Your task to perform on an android device: Open location settings Image 0: 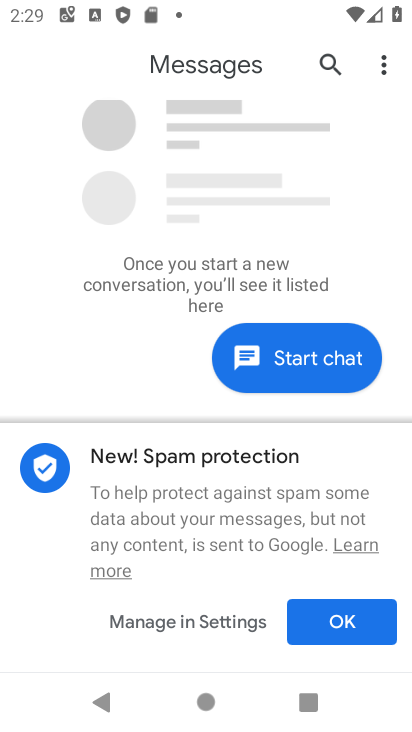
Step 0: press home button
Your task to perform on an android device: Open location settings Image 1: 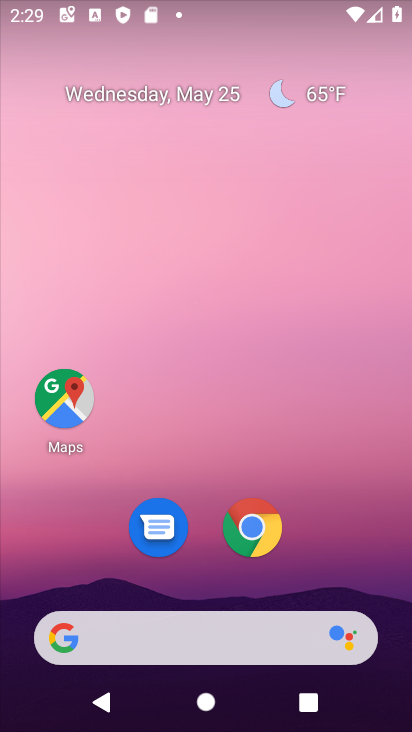
Step 1: drag from (352, 610) to (359, 36)
Your task to perform on an android device: Open location settings Image 2: 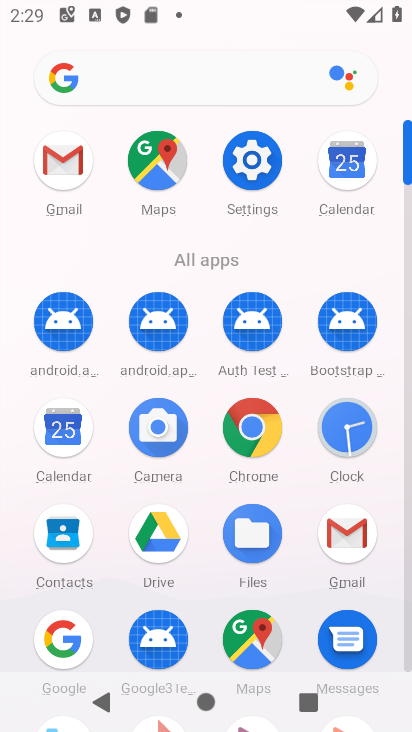
Step 2: click (262, 165)
Your task to perform on an android device: Open location settings Image 3: 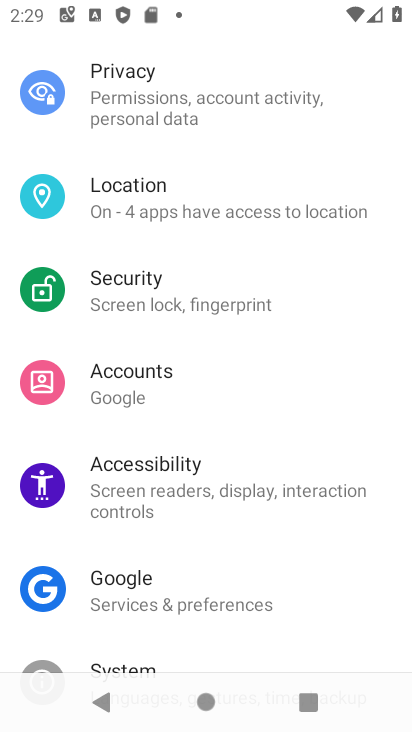
Step 3: click (182, 201)
Your task to perform on an android device: Open location settings Image 4: 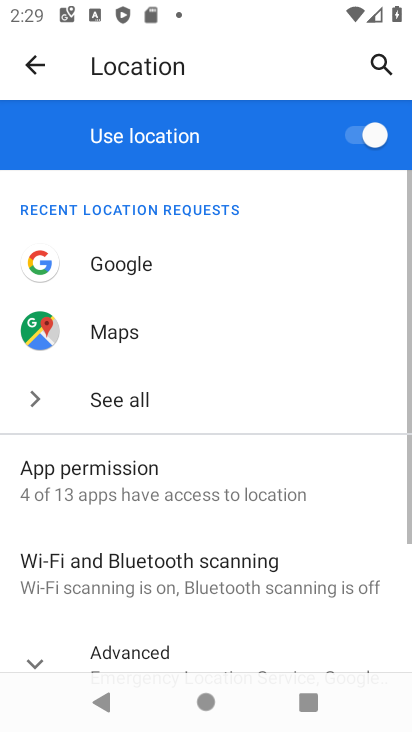
Step 4: task complete